Your task to perform on an android device: stop showing notifications on the lock screen Image 0: 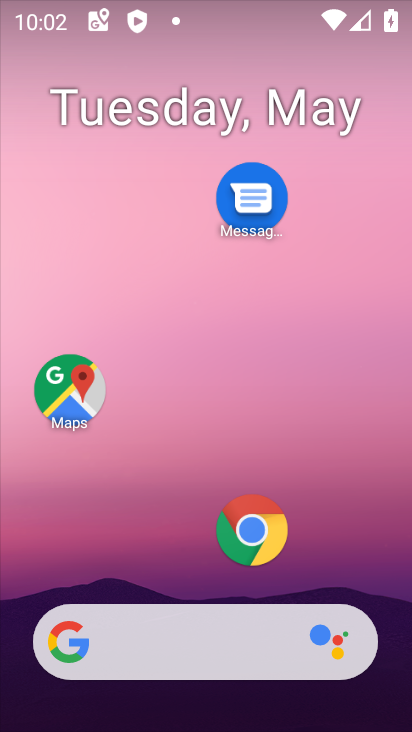
Step 0: drag from (175, 540) to (150, 90)
Your task to perform on an android device: stop showing notifications on the lock screen Image 1: 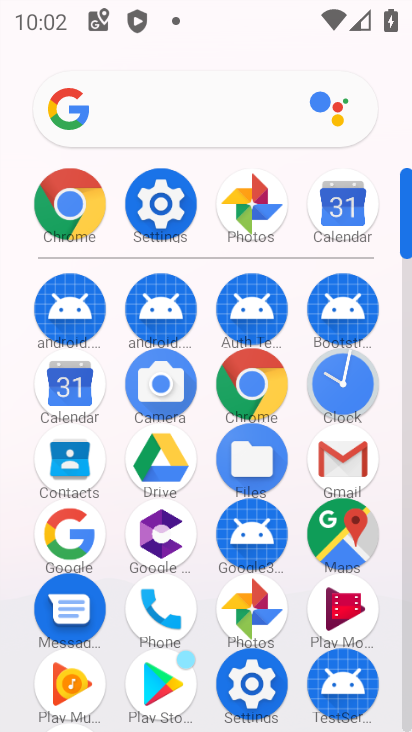
Step 1: click (167, 215)
Your task to perform on an android device: stop showing notifications on the lock screen Image 2: 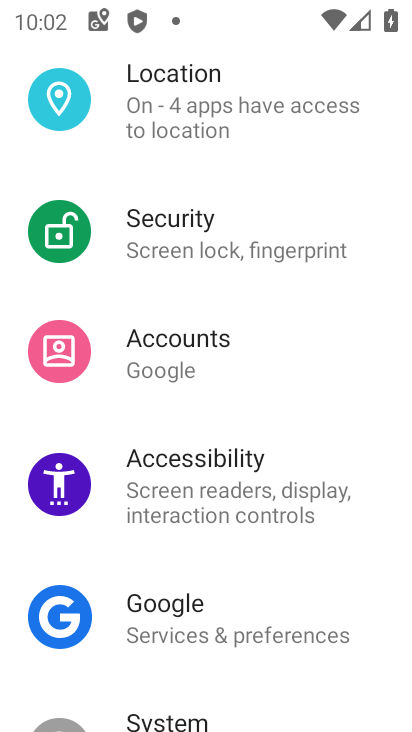
Step 2: drag from (212, 249) to (218, 537)
Your task to perform on an android device: stop showing notifications on the lock screen Image 3: 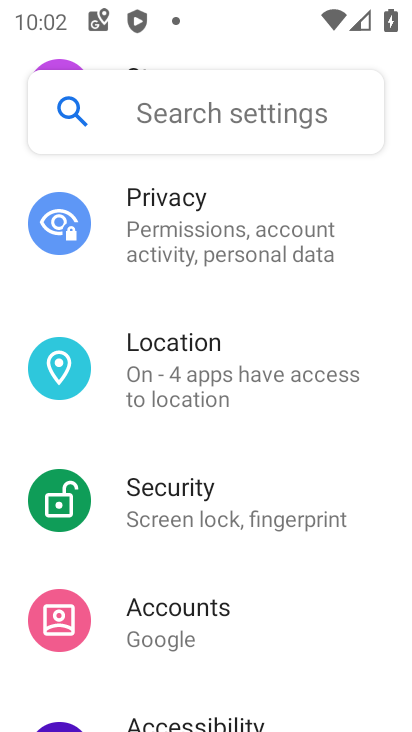
Step 3: drag from (218, 285) to (230, 607)
Your task to perform on an android device: stop showing notifications on the lock screen Image 4: 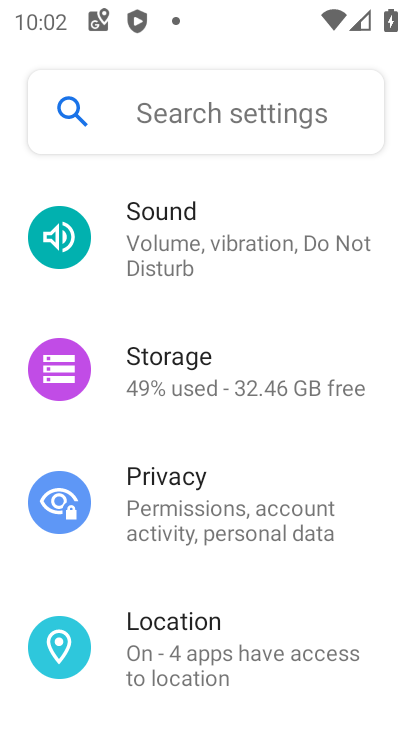
Step 4: drag from (209, 604) to (186, 310)
Your task to perform on an android device: stop showing notifications on the lock screen Image 5: 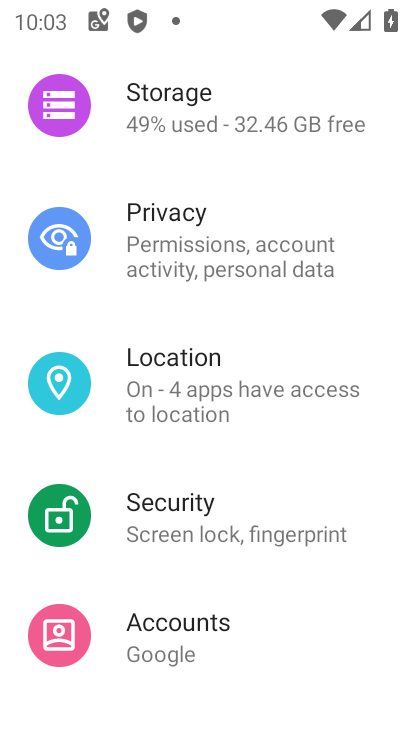
Step 5: drag from (201, 270) to (182, 536)
Your task to perform on an android device: stop showing notifications on the lock screen Image 6: 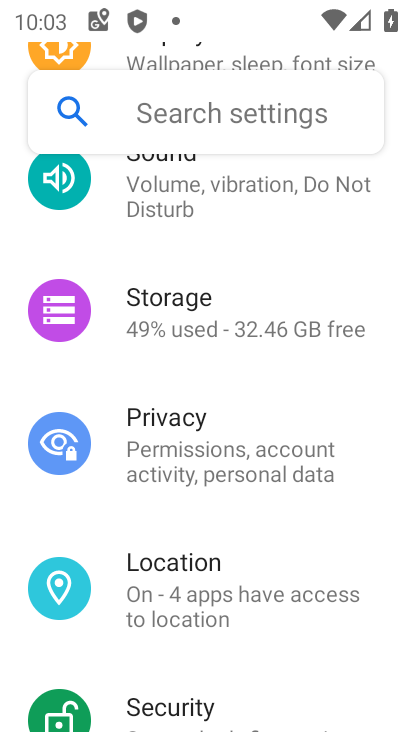
Step 6: drag from (199, 306) to (183, 570)
Your task to perform on an android device: stop showing notifications on the lock screen Image 7: 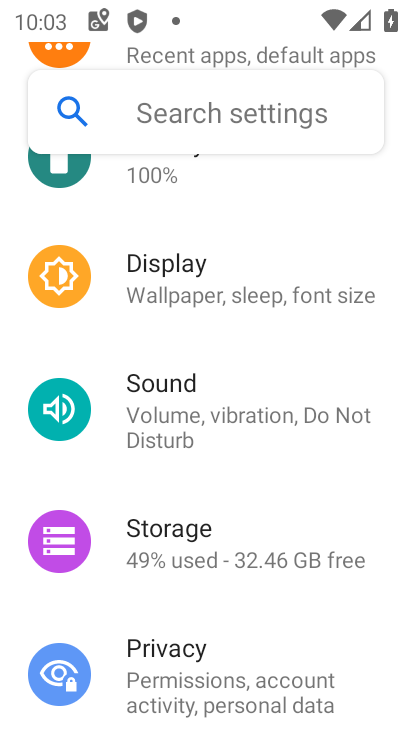
Step 7: drag from (160, 290) to (154, 545)
Your task to perform on an android device: stop showing notifications on the lock screen Image 8: 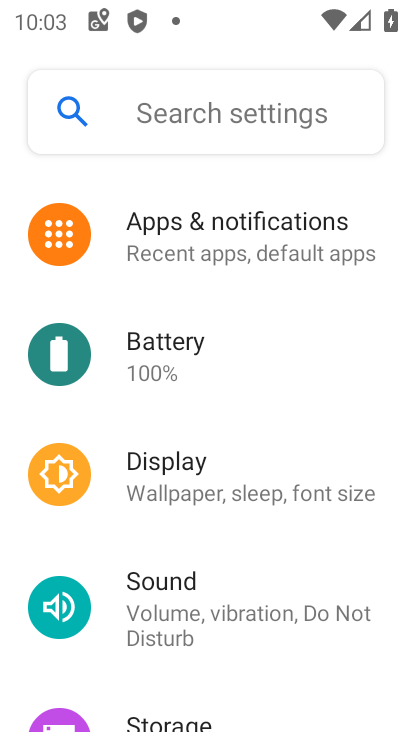
Step 8: click (154, 233)
Your task to perform on an android device: stop showing notifications on the lock screen Image 9: 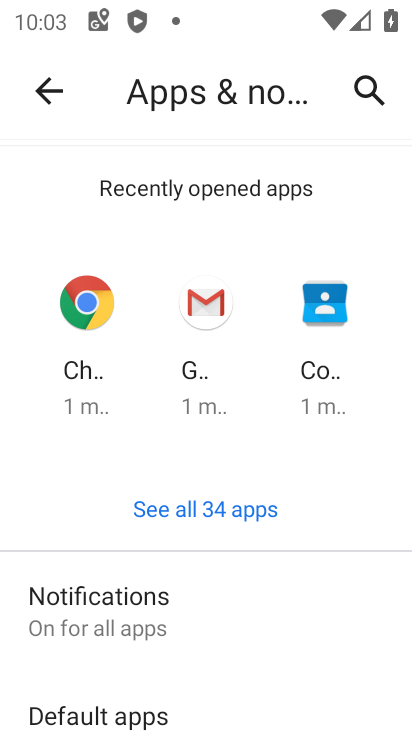
Step 9: click (85, 620)
Your task to perform on an android device: stop showing notifications on the lock screen Image 10: 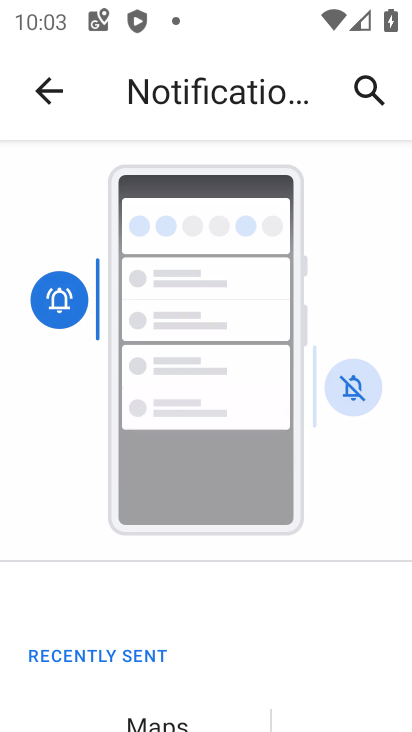
Step 10: drag from (238, 670) to (221, 298)
Your task to perform on an android device: stop showing notifications on the lock screen Image 11: 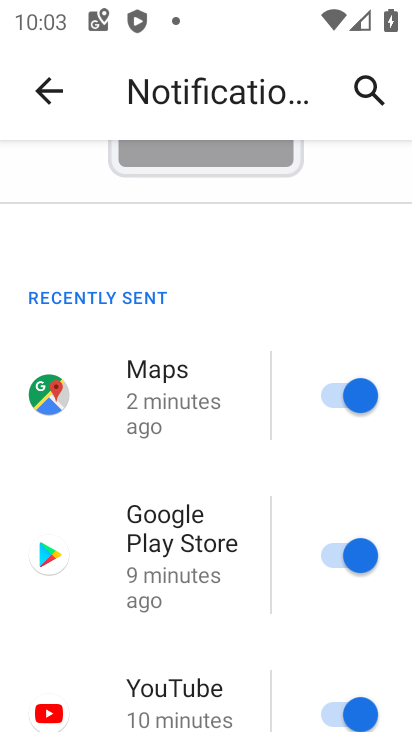
Step 11: drag from (217, 625) to (195, 247)
Your task to perform on an android device: stop showing notifications on the lock screen Image 12: 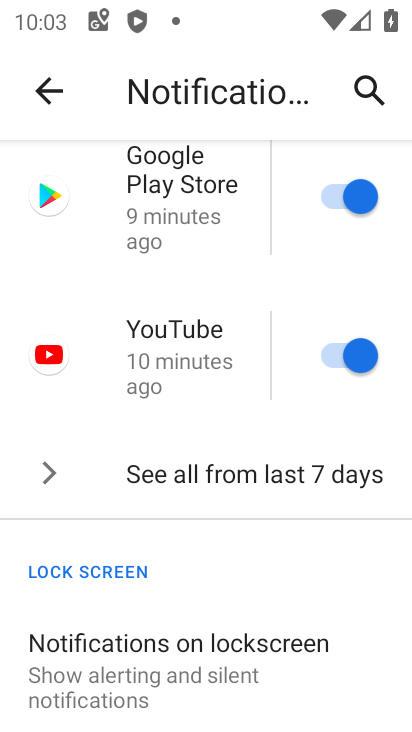
Step 12: click (119, 666)
Your task to perform on an android device: stop showing notifications on the lock screen Image 13: 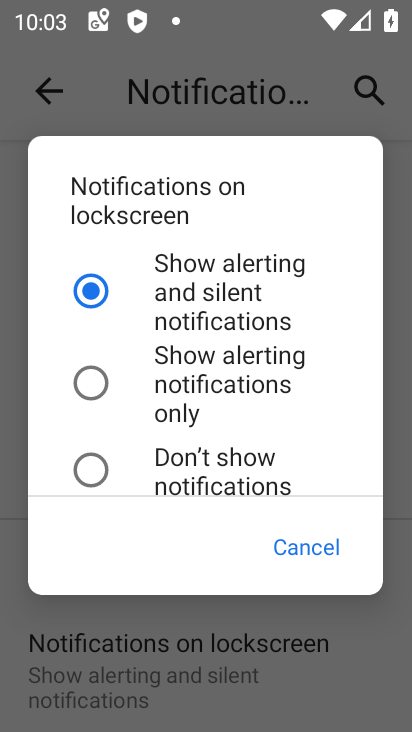
Step 13: click (95, 478)
Your task to perform on an android device: stop showing notifications on the lock screen Image 14: 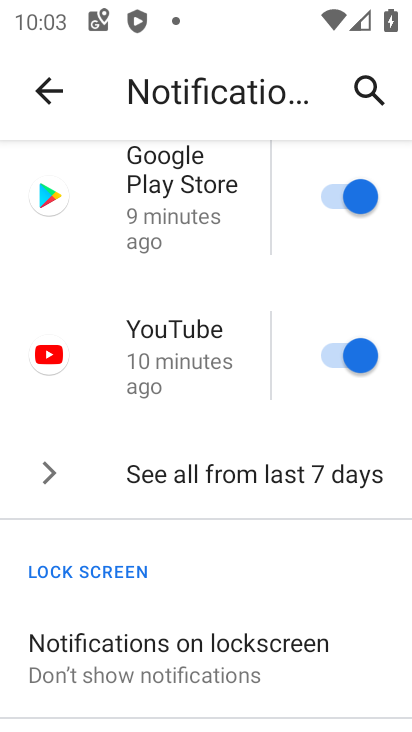
Step 14: task complete